Your task to perform on an android device: Go to location settings Image 0: 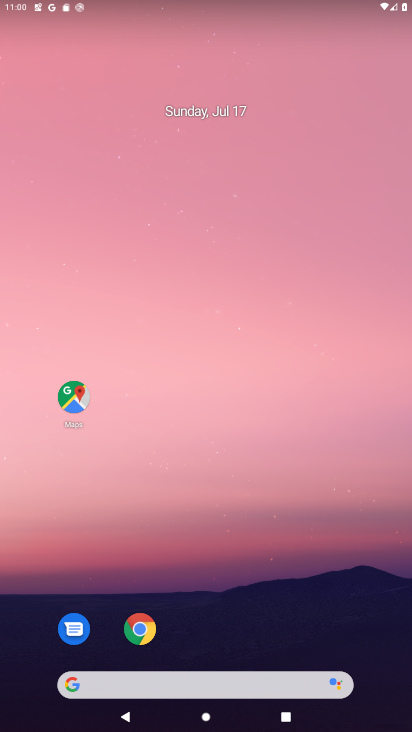
Step 0: drag from (183, 689) to (253, 101)
Your task to perform on an android device: Go to location settings Image 1: 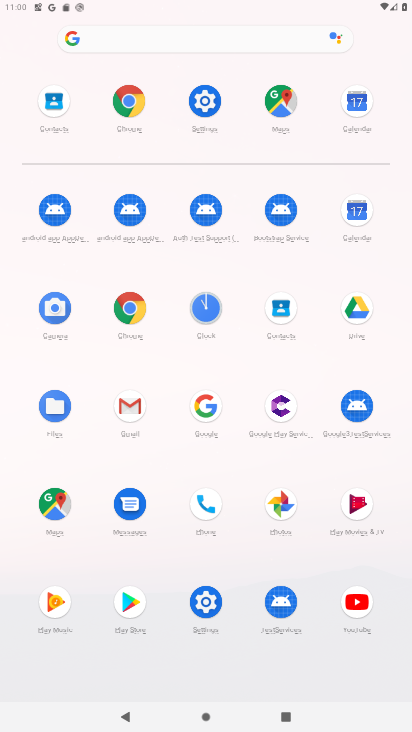
Step 1: click (203, 102)
Your task to perform on an android device: Go to location settings Image 2: 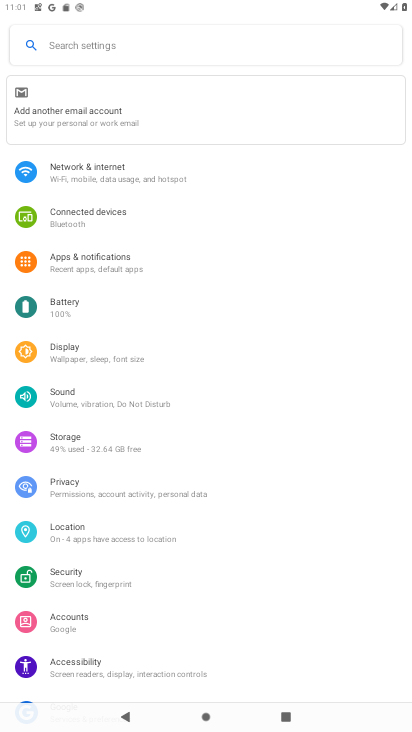
Step 2: click (67, 526)
Your task to perform on an android device: Go to location settings Image 3: 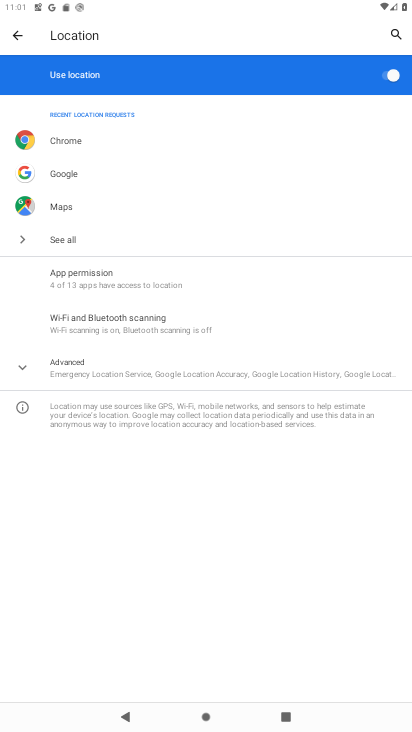
Step 3: task complete